Your task to perform on an android device: delete the emails in spam in the gmail app Image 0: 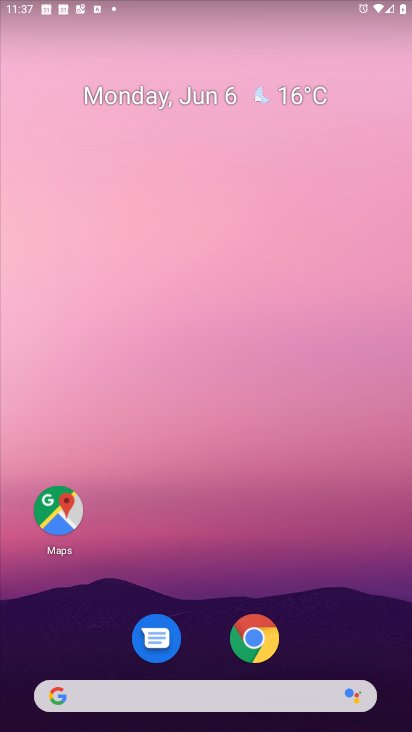
Step 0: click (241, 58)
Your task to perform on an android device: delete the emails in spam in the gmail app Image 1: 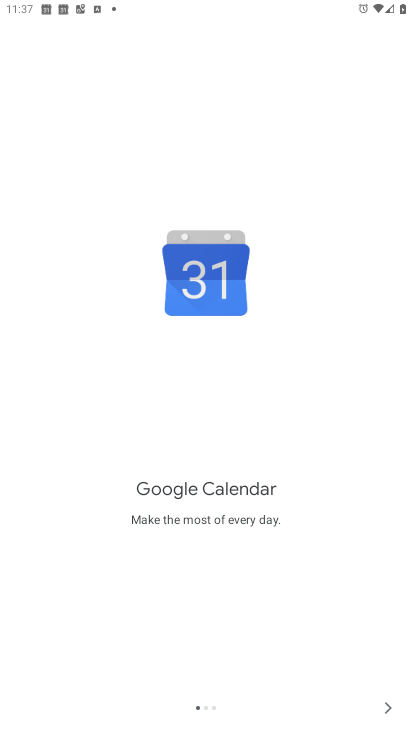
Step 1: press home button
Your task to perform on an android device: delete the emails in spam in the gmail app Image 2: 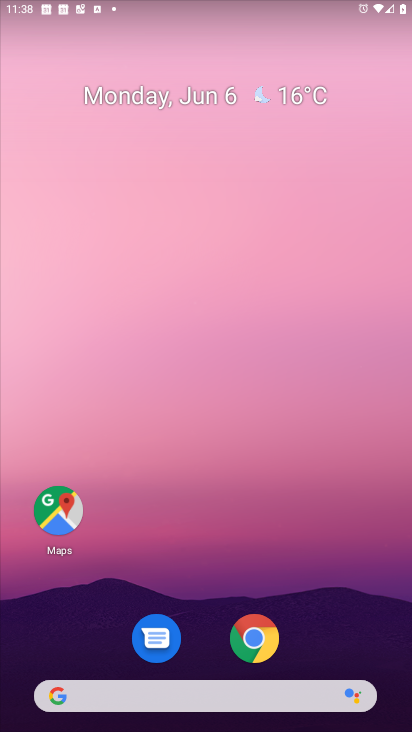
Step 2: drag from (194, 708) to (329, 138)
Your task to perform on an android device: delete the emails in spam in the gmail app Image 3: 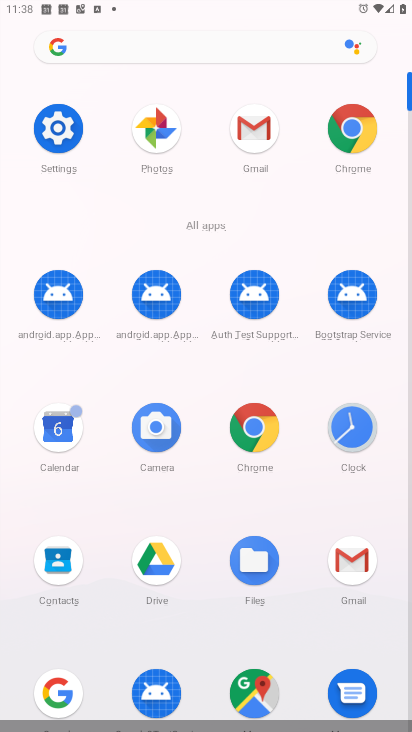
Step 3: click (352, 575)
Your task to perform on an android device: delete the emails in spam in the gmail app Image 4: 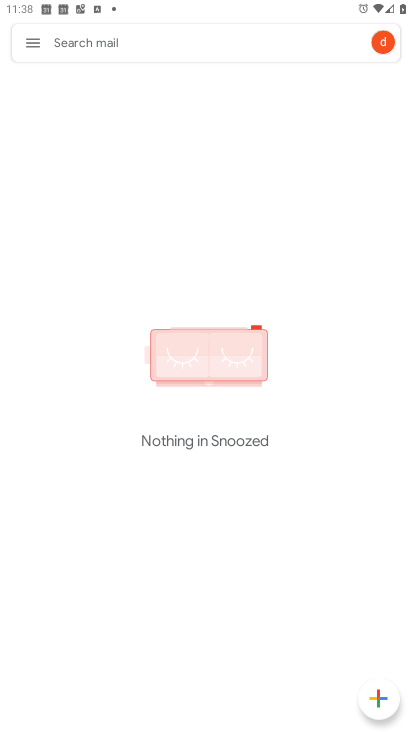
Step 4: click (37, 48)
Your task to perform on an android device: delete the emails in spam in the gmail app Image 5: 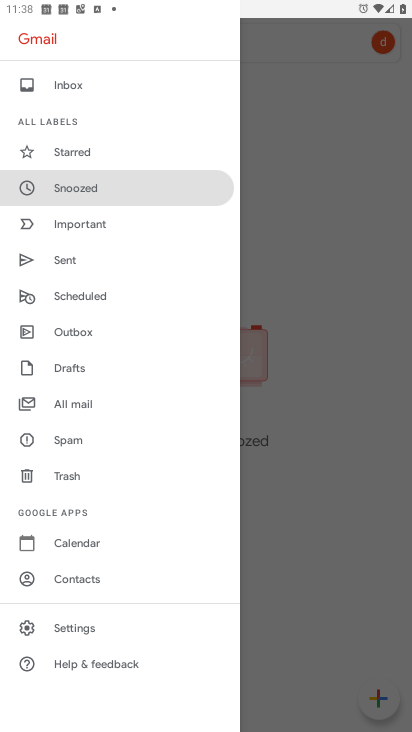
Step 5: click (92, 440)
Your task to perform on an android device: delete the emails in spam in the gmail app Image 6: 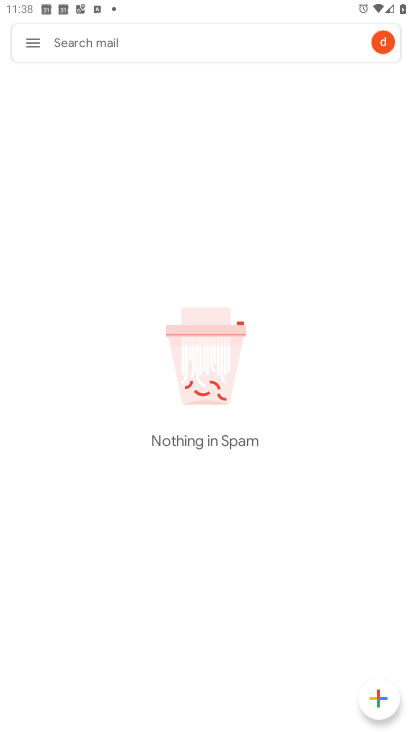
Step 6: click (46, 74)
Your task to perform on an android device: delete the emails in spam in the gmail app Image 7: 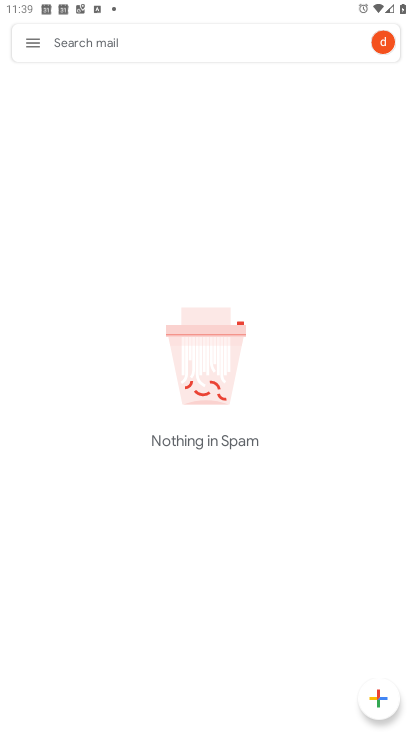
Step 7: click (16, 41)
Your task to perform on an android device: delete the emails in spam in the gmail app Image 8: 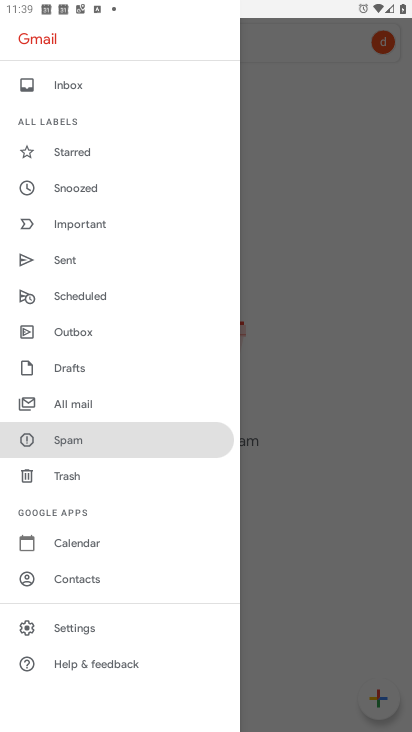
Step 8: click (96, 443)
Your task to perform on an android device: delete the emails in spam in the gmail app Image 9: 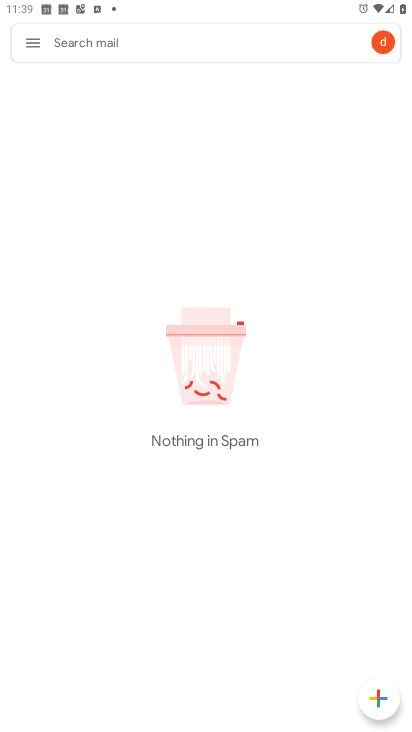
Step 9: task complete